Your task to perform on an android device: Add usb-a to usb-b to the cart on amazon, then select checkout. Image 0: 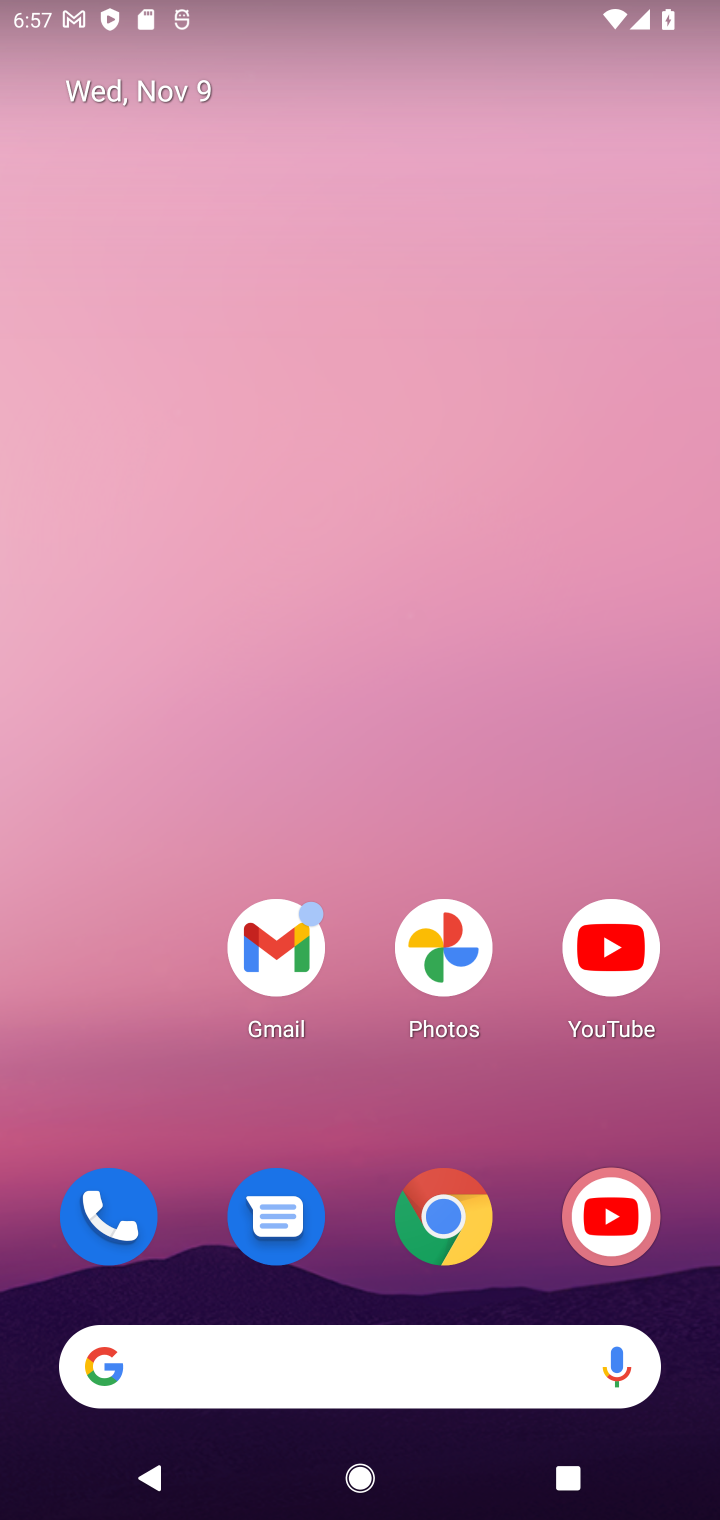
Step 0: drag from (361, 1107) to (402, 143)
Your task to perform on an android device: Add usb-a to usb-b to the cart on amazon, then select checkout. Image 1: 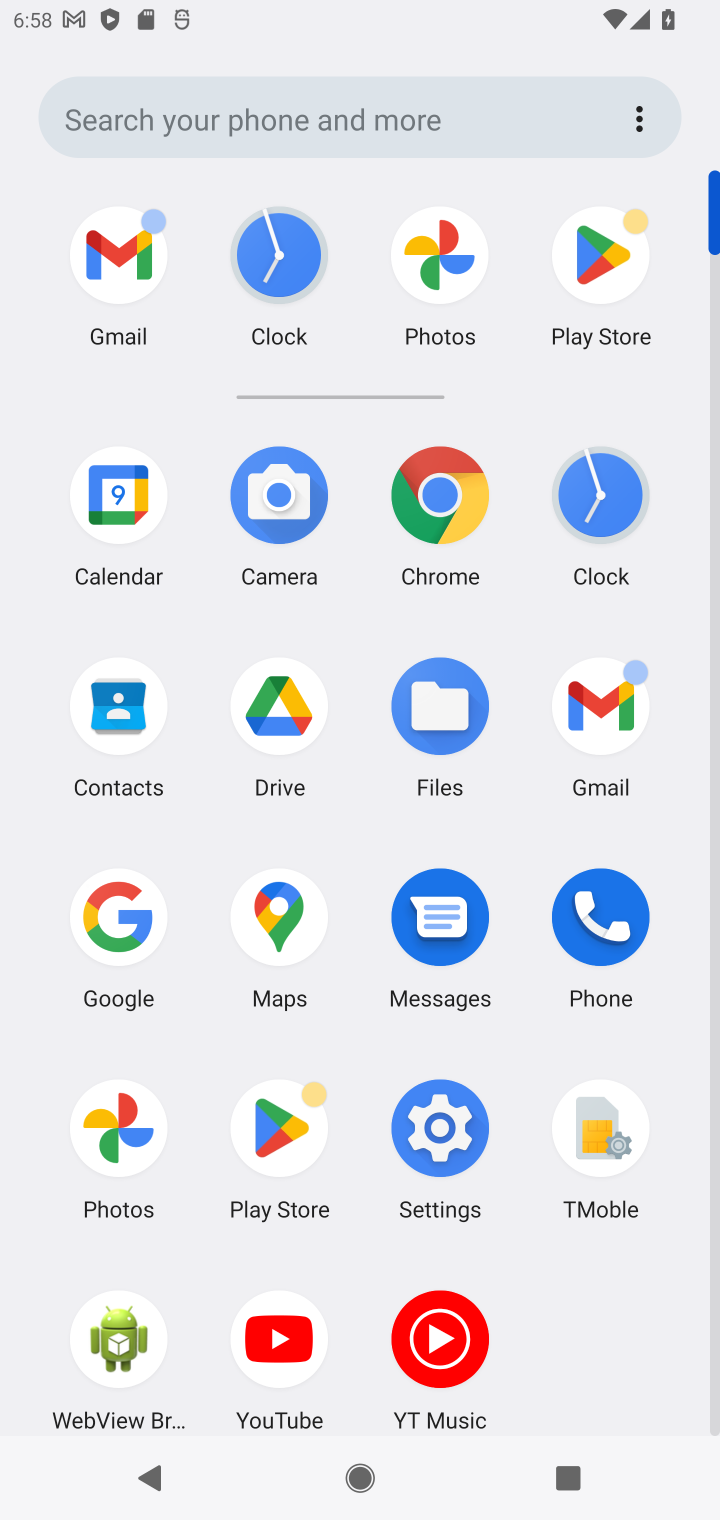
Step 1: click (445, 502)
Your task to perform on an android device: Add usb-a to usb-b to the cart on amazon, then select checkout. Image 2: 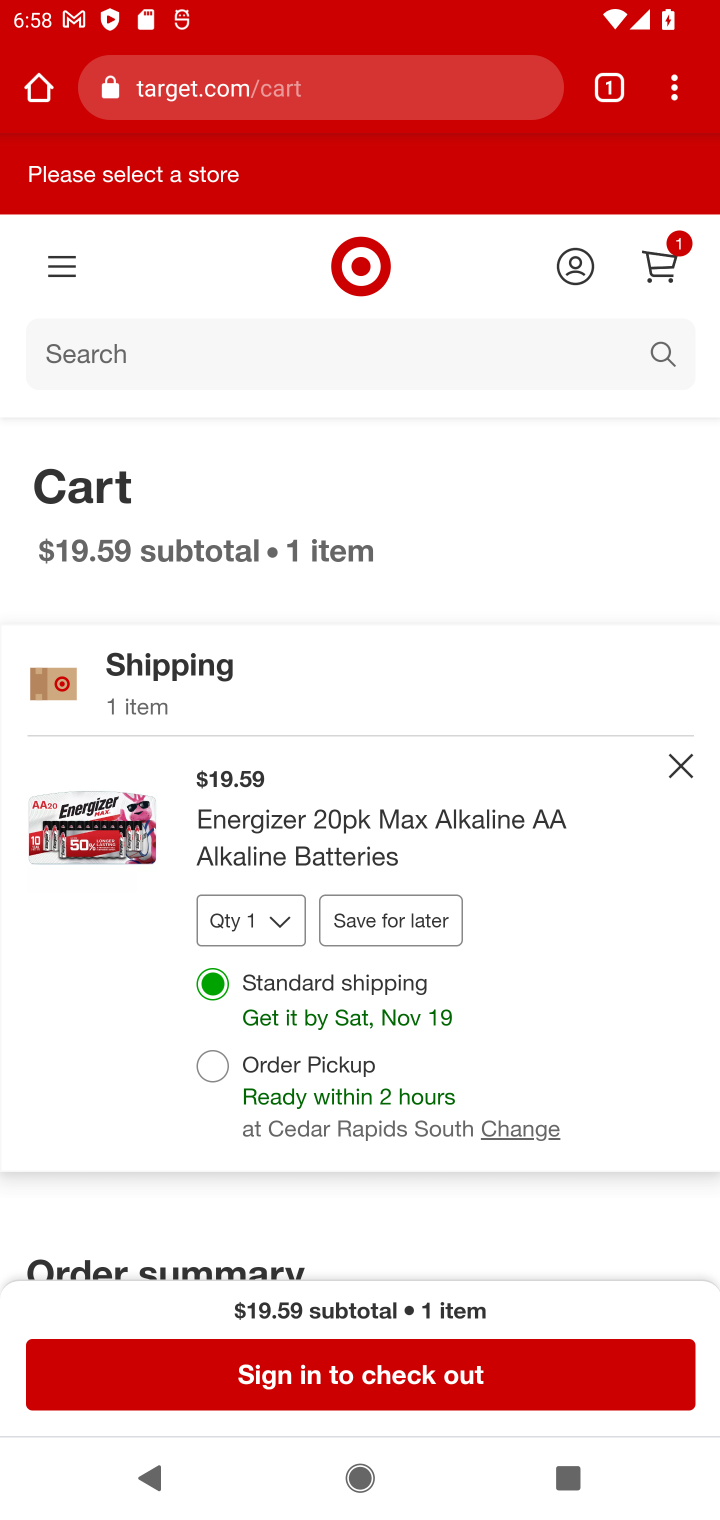
Step 2: click (367, 109)
Your task to perform on an android device: Add usb-a to usb-b to the cart on amazon, then select checkout. Image 3: 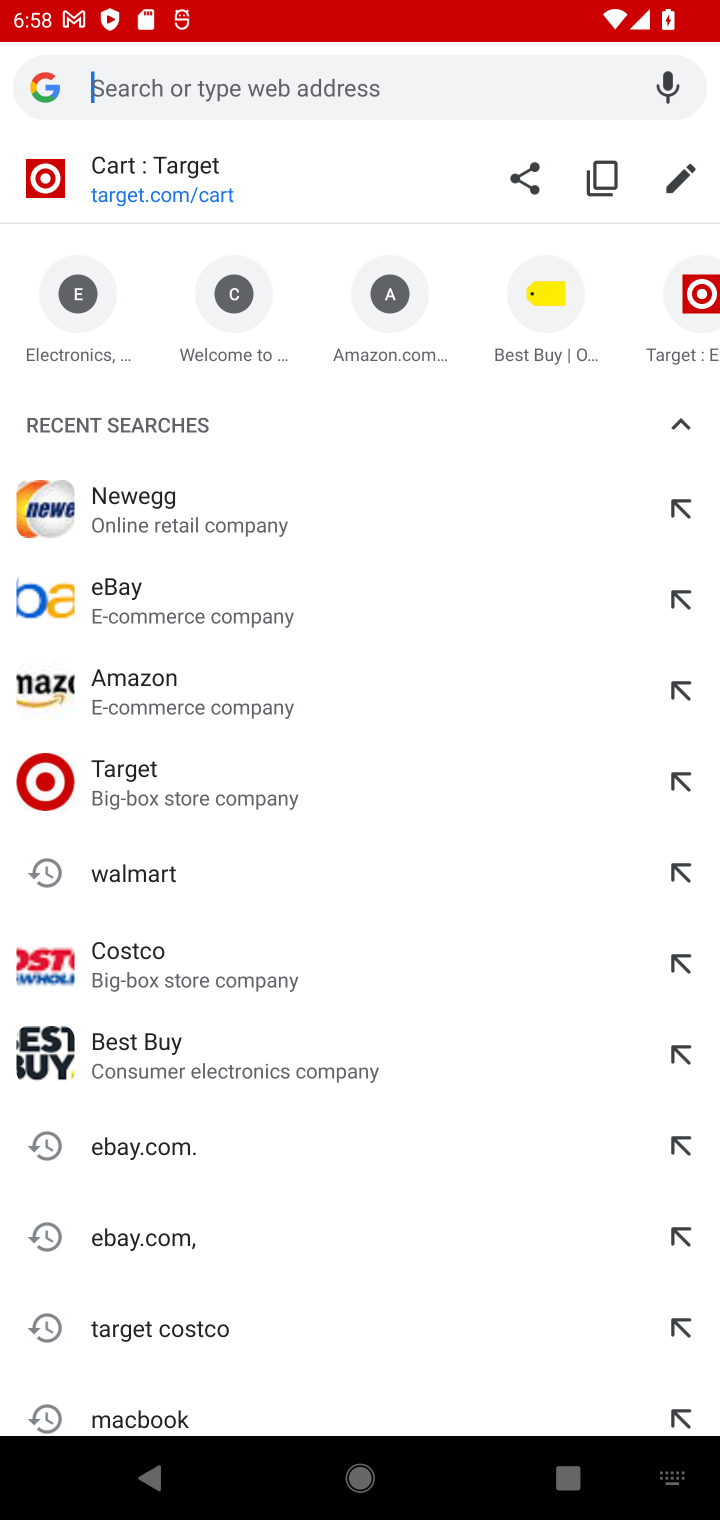
Step 3: type "amazon.com"
Your task to perform on an android device: Add usb-a to usb-b to the cart on amazon, then select checkout. Image 4: 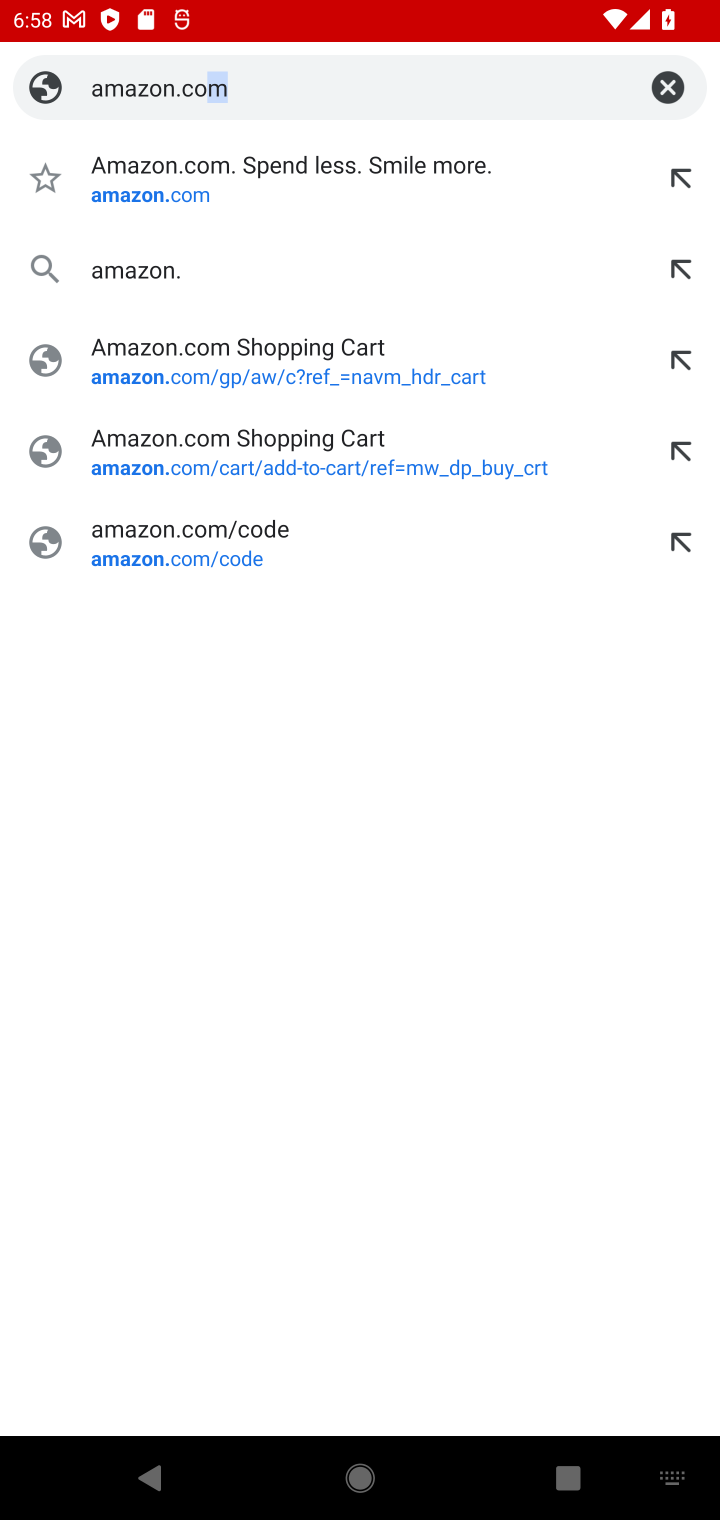
Step 4: press enter
Your task to perform on an android device: Add usb-a to usb-b to the cart on amazon, then select checkout. Image 5: 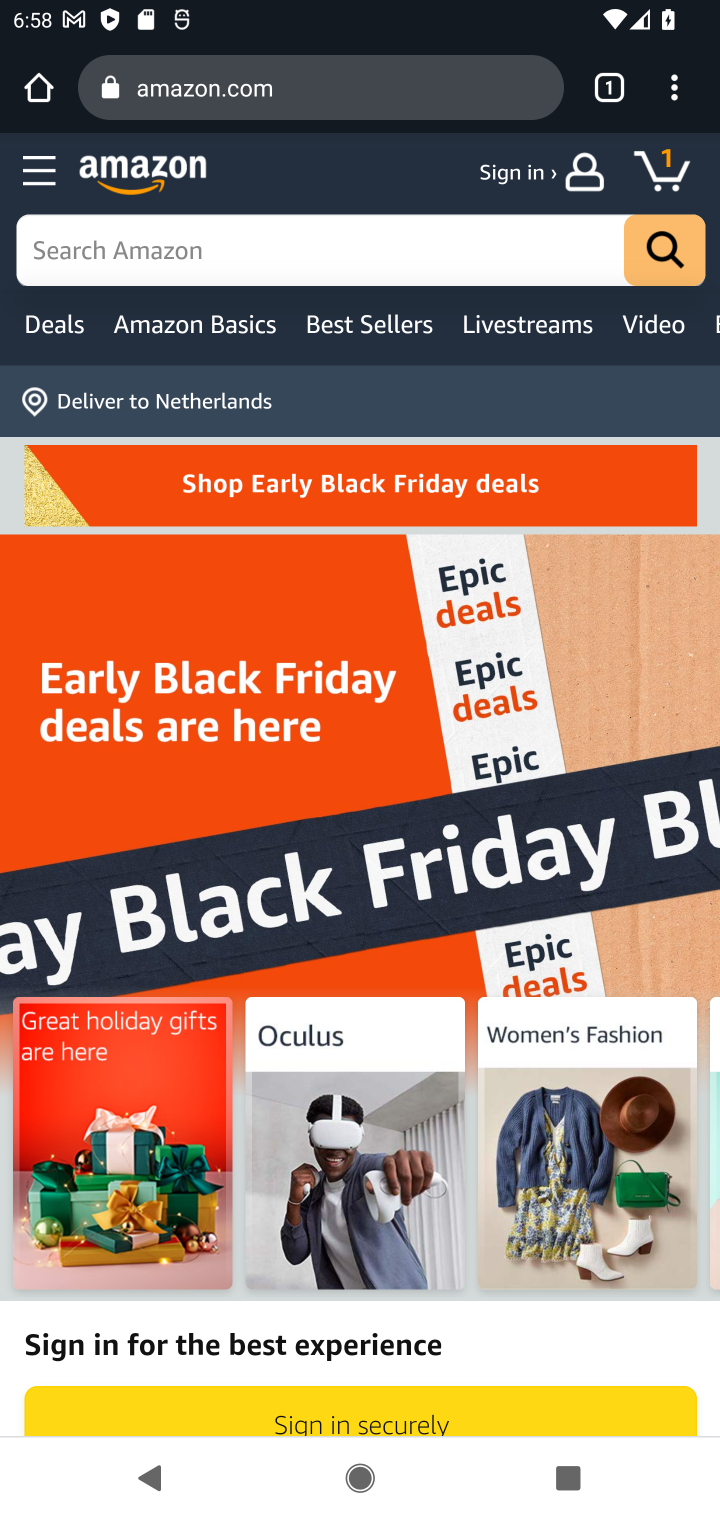
Step 5: click (473, 263)
Your task to perform on an android device: Add usb-a to usb-b to the cart on amazon, then select checkout. Image 6: 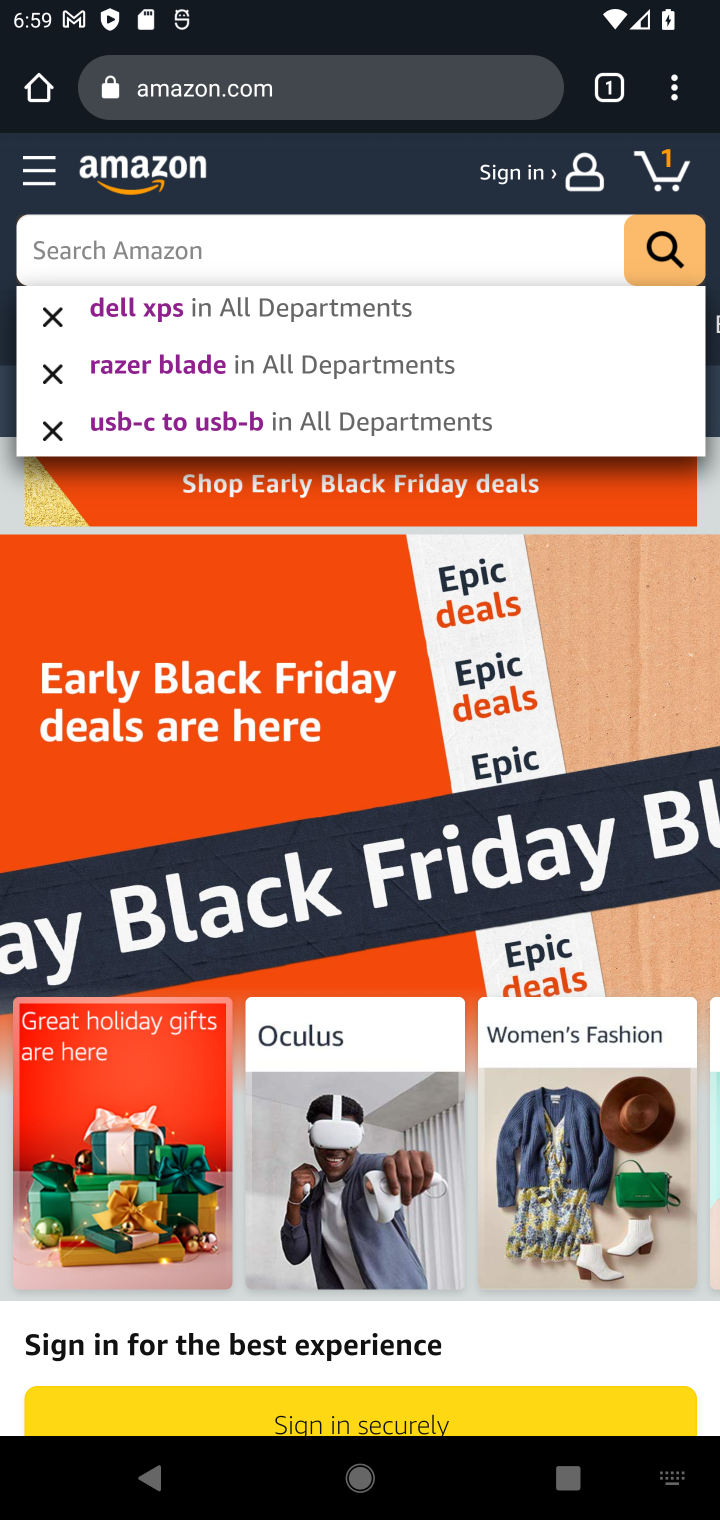
Step 6: type "usb-a to usb-b"
Your task to perform on an android device: Add usb-a to usb-b to the cart on amazon, then select checkout. Image 7: 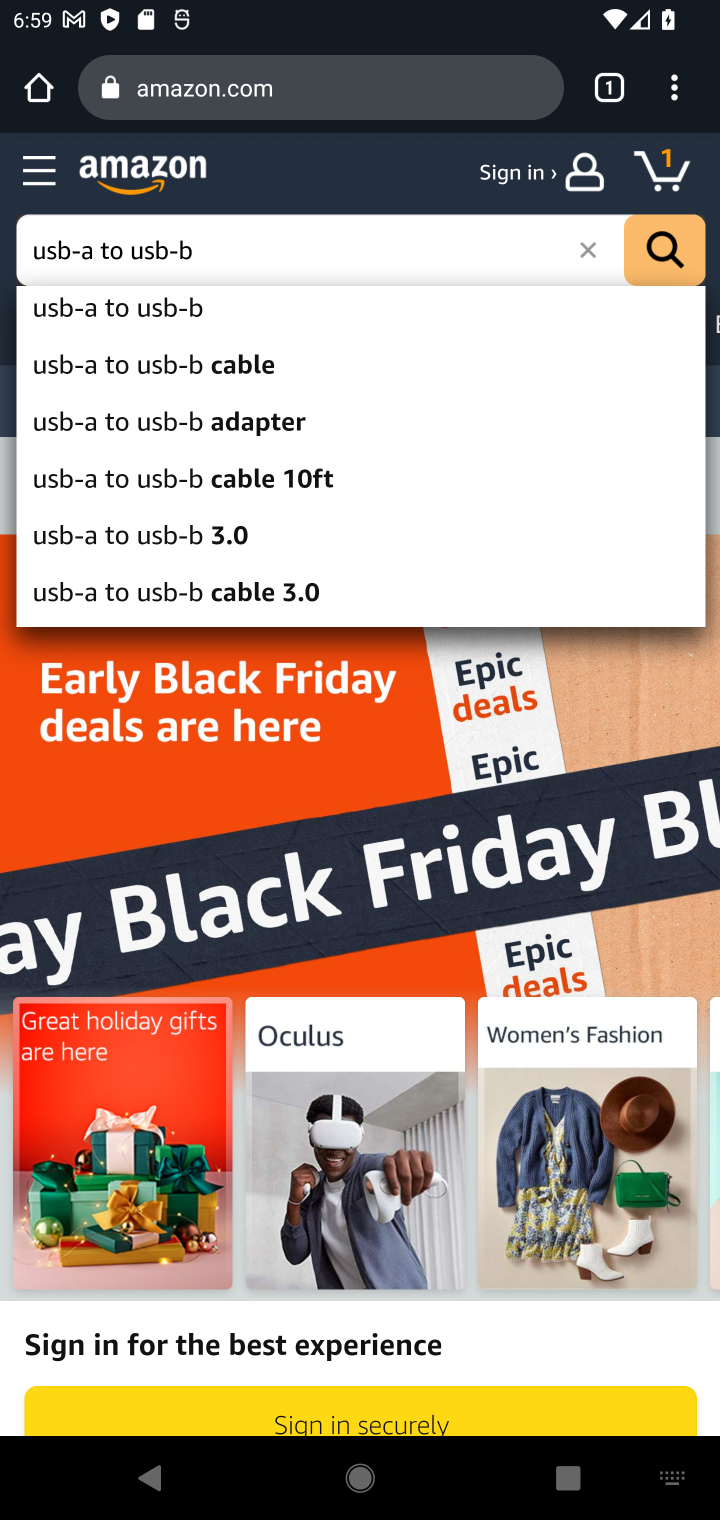
Step 7: press enter
Your task to perform on an android device: Add usb-a to usb-b to the cart on amazon, then select checkout. Image 8: 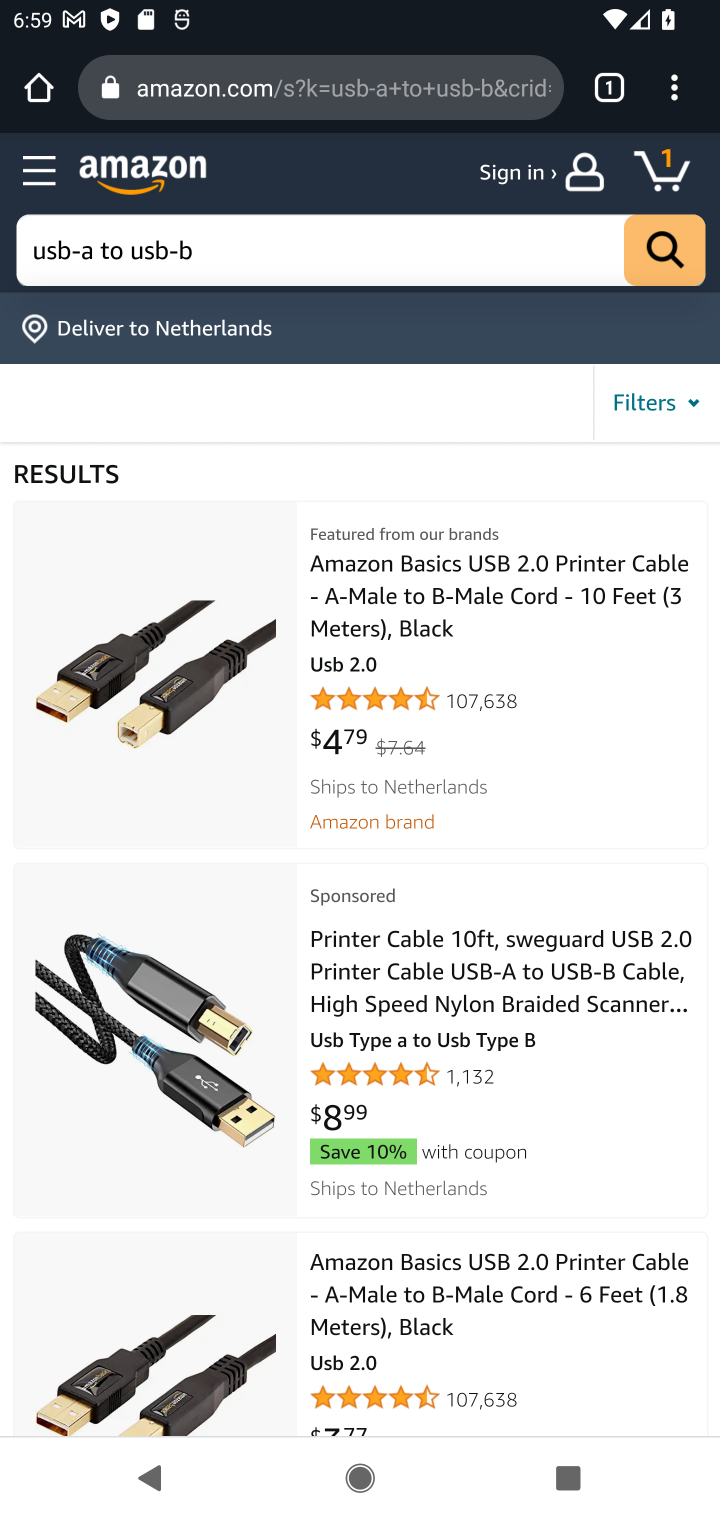
Step 8: drag from (524, 1250) to (560, 684)
Your task to perform on an android device: Add usb-a to usb-b to the cart on amazon, then select checkout. Image 9: 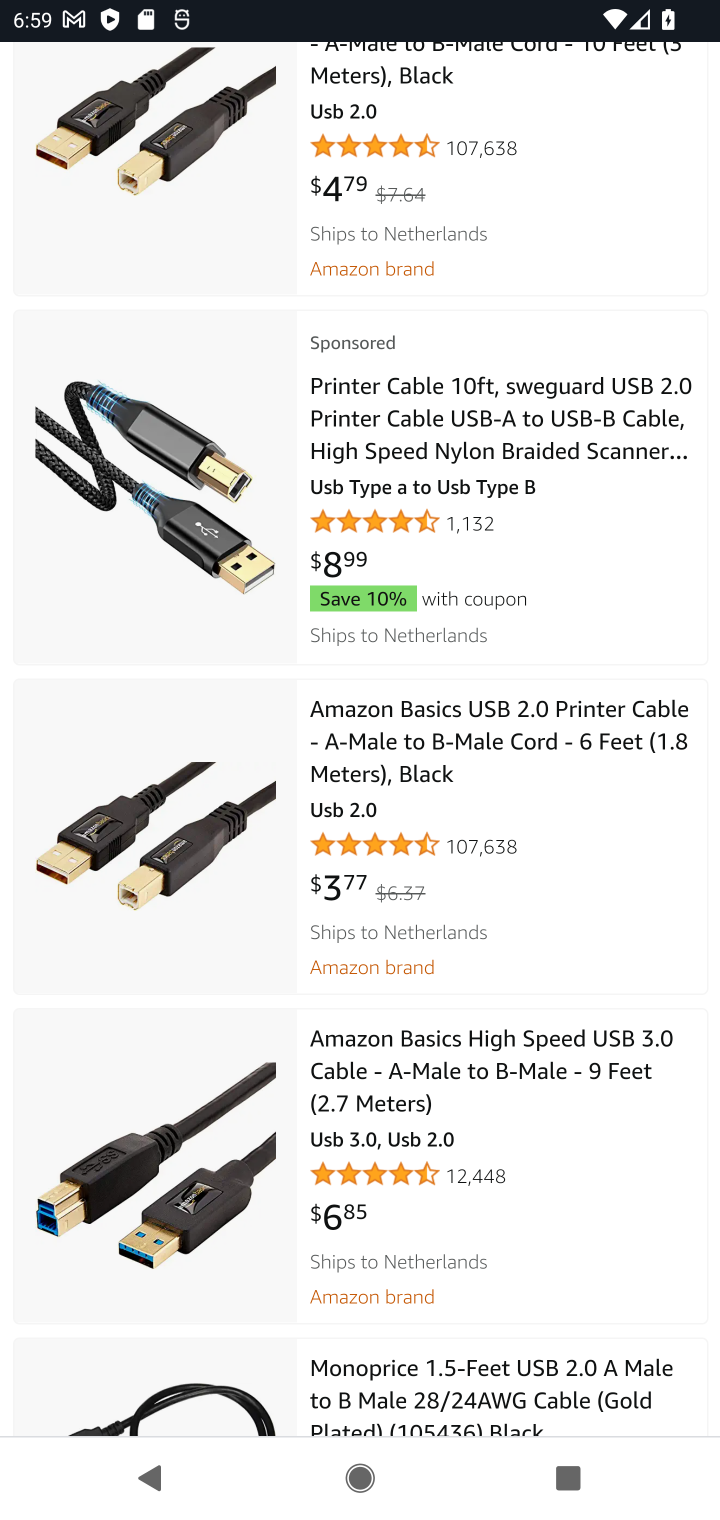
Step 9: drag from (567, 904) to (594, 530)
Your task to perform on an android device: Add usb-a to usb-b to the cart on amazon, then select checkout. Image 10: 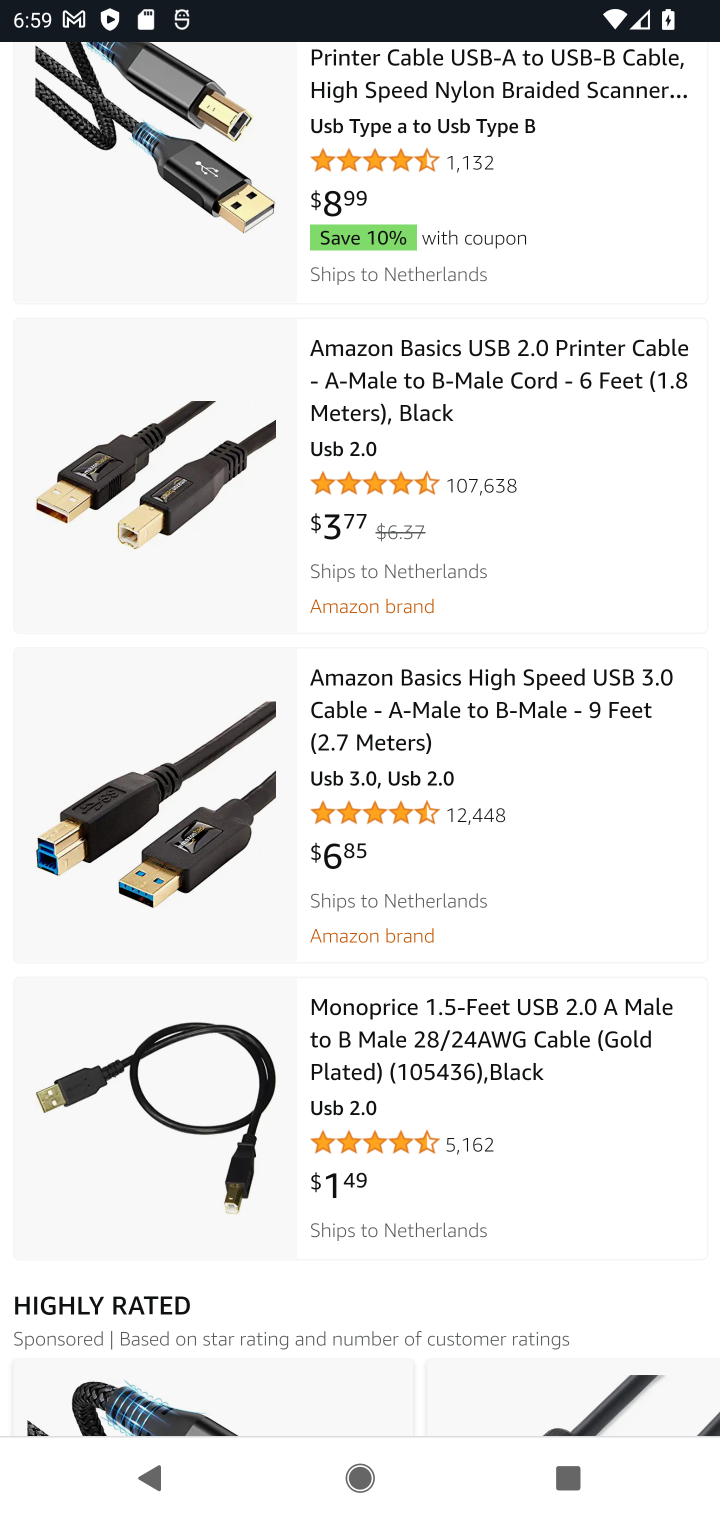
Step 10: click (343, 426)
Your task to perform on an android device: Add usb-a to usb-b to the cart on amazon, then select checkout. Image 11: 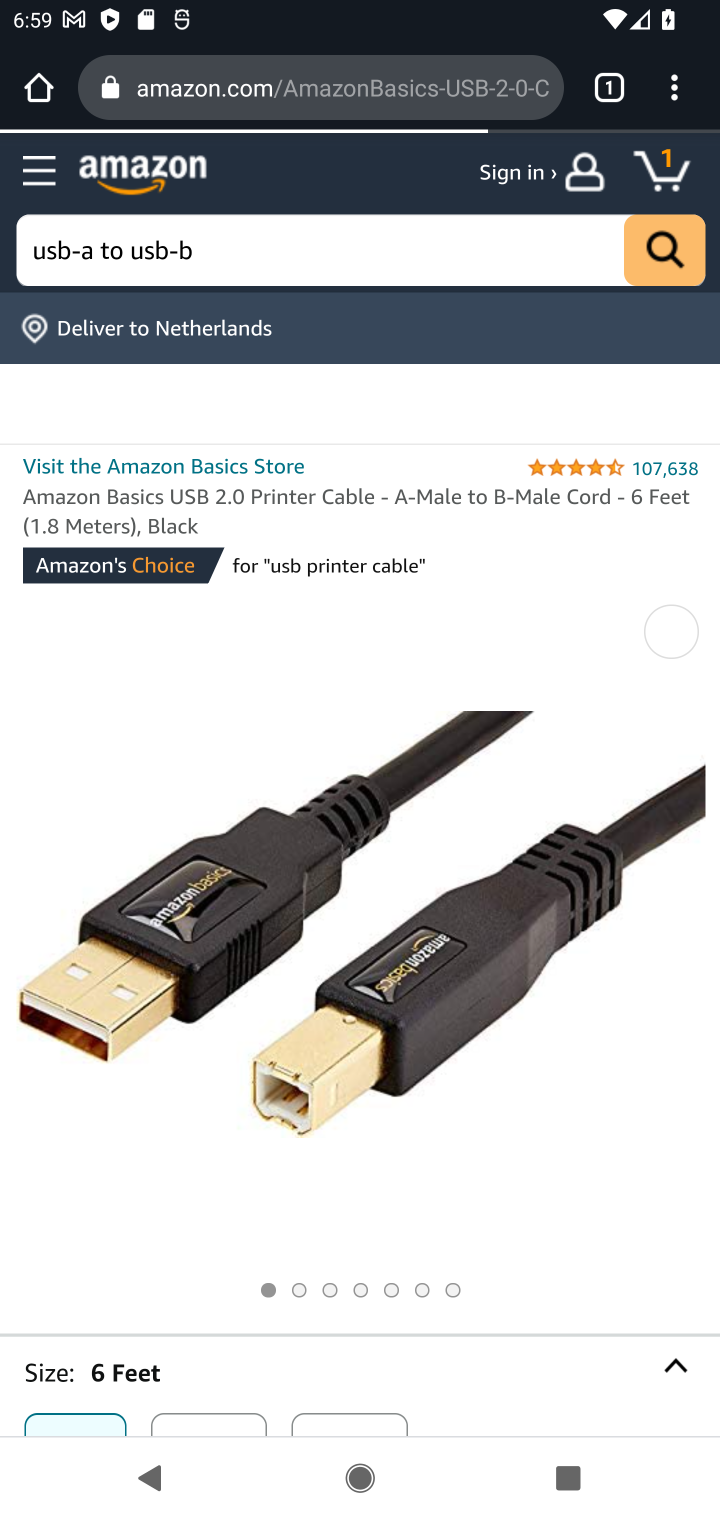
Step 11: drag from (396, 1136) to (439, 245)
Your task to perform on an android device: Add usb-a to usb-b to the cart on amazon, then select checkout. Image 12: 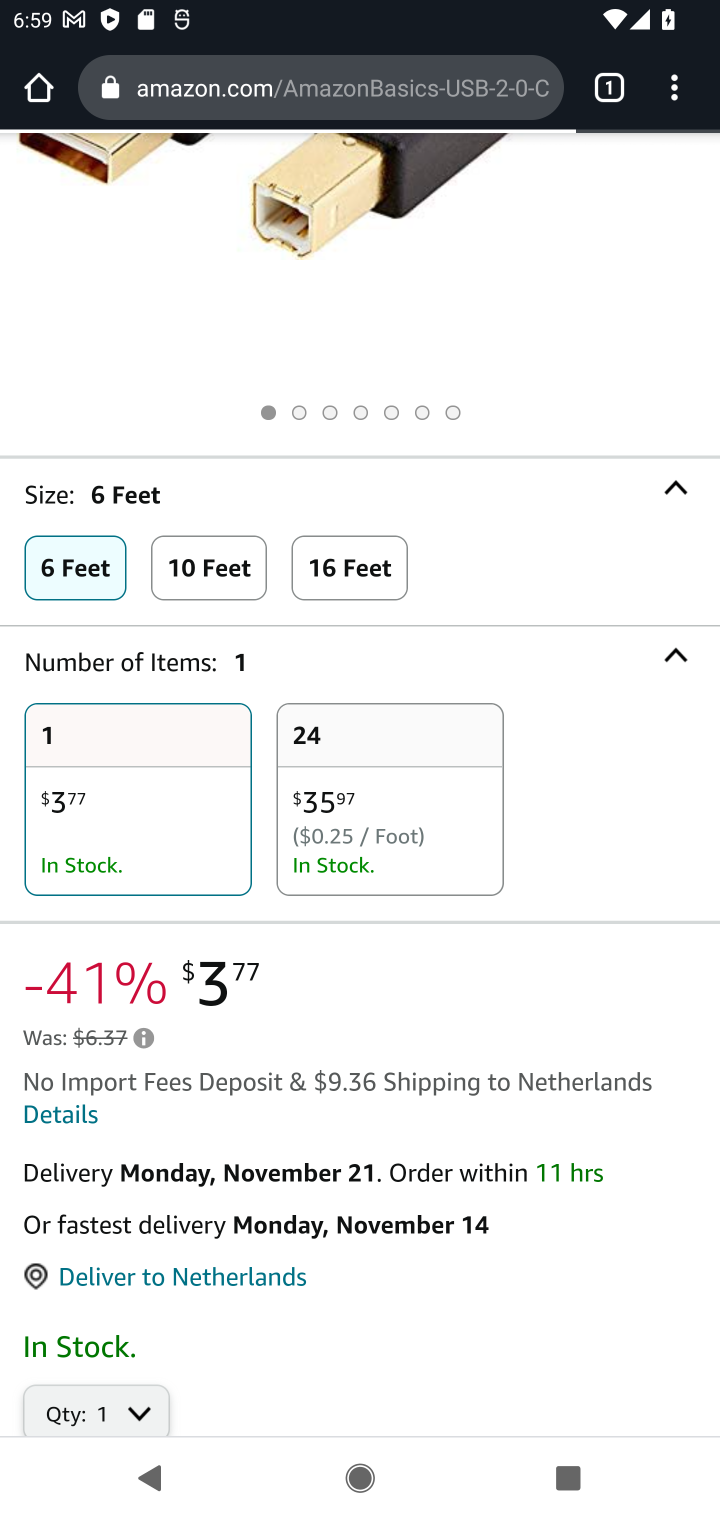
Step 12: drag from (418, 980) to (511, 299)
Your task to perform on an android device: Add usb-a to usb-b to the cart on amazon, then select checkout. Image 13: 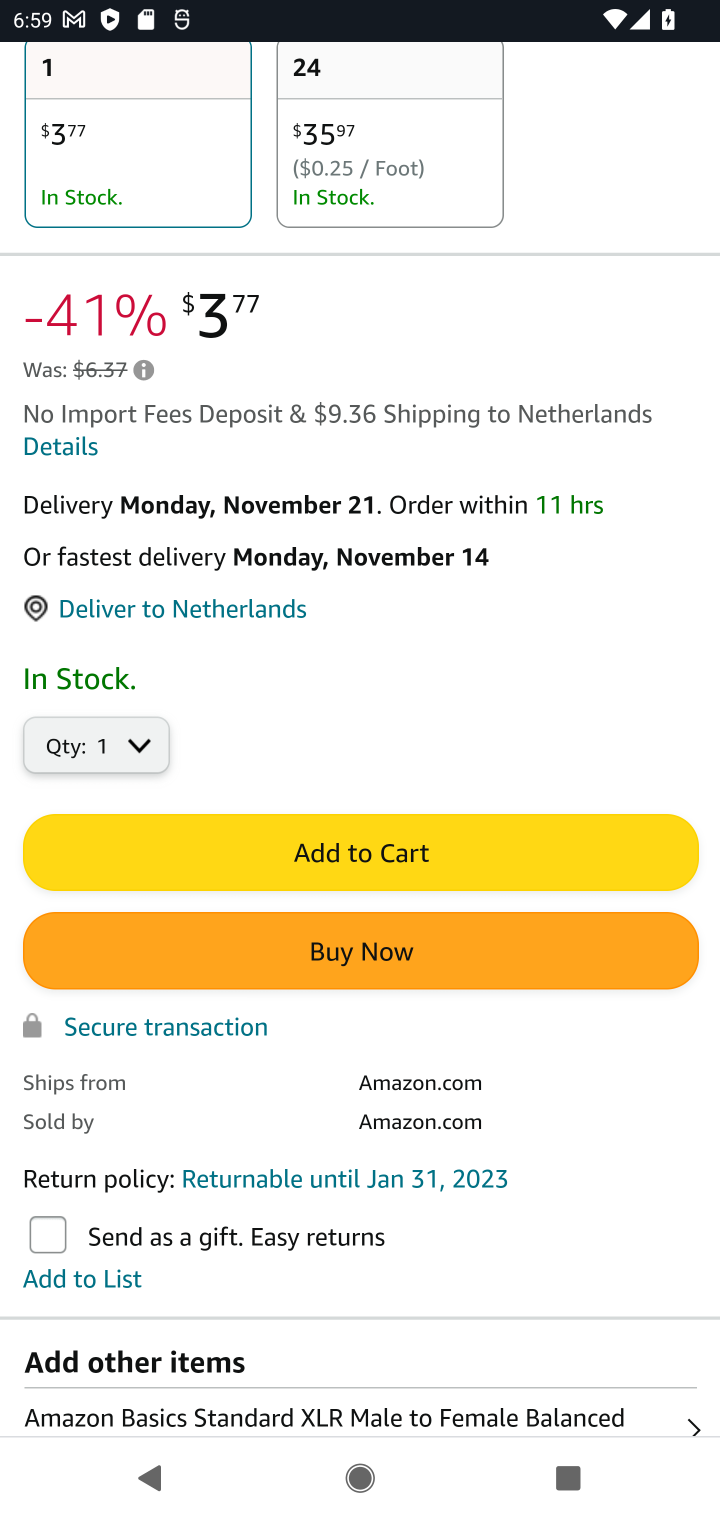
Step 13: click (449, 854)
Your task to perform on an android device: Add usb-a to usb-b to the cart on amazon, then select checkout. Image 14: 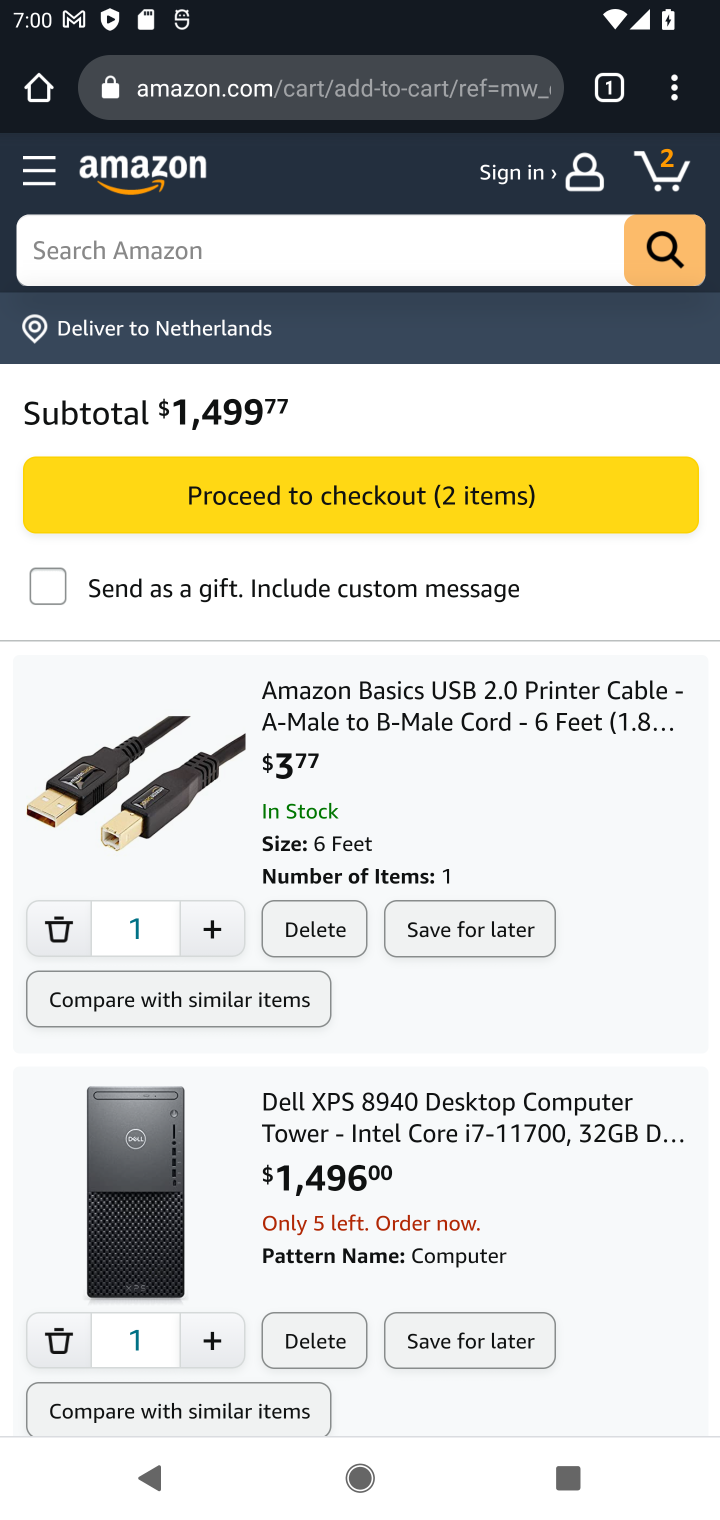
Step 14: click (421, 509)
Your task to perform on an android device: Add usb-a to usb-b to the cart on amazon, then select checkout. Image 15: 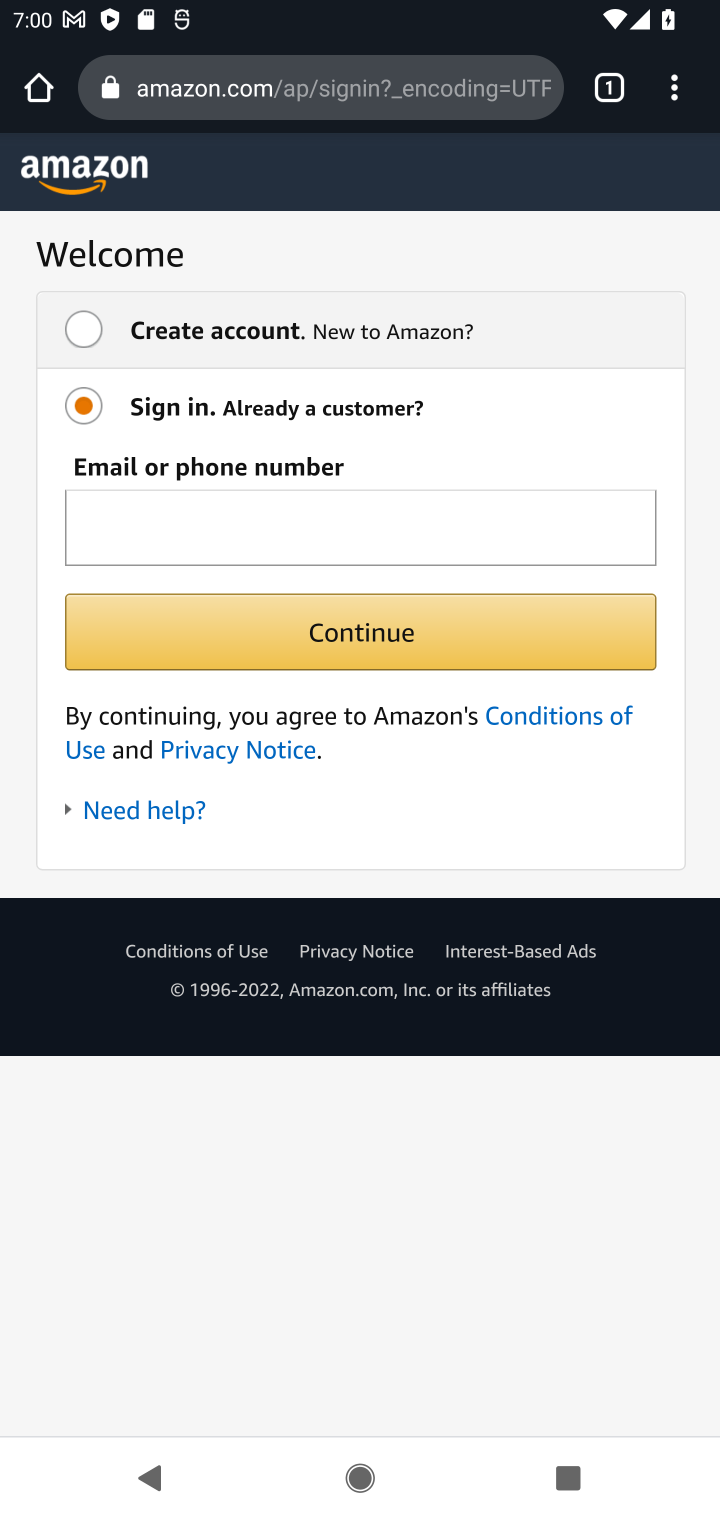
Step 15: task complete